Your task to perform on an android device: Go to CNN.com Image 0: 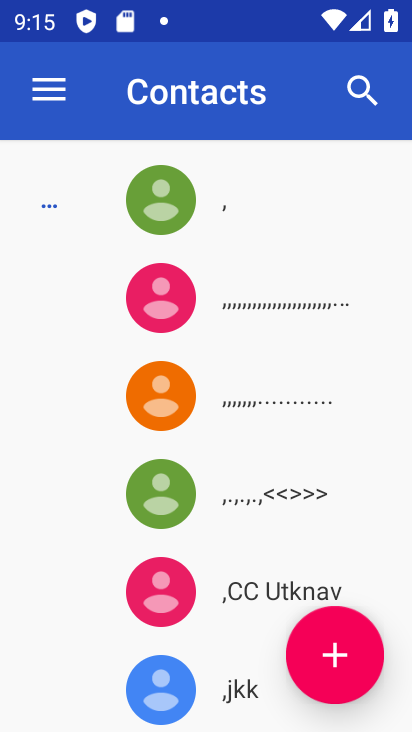
Step 0: press home button
Your task to perform on an android device: Go to CNN.com Image 1: 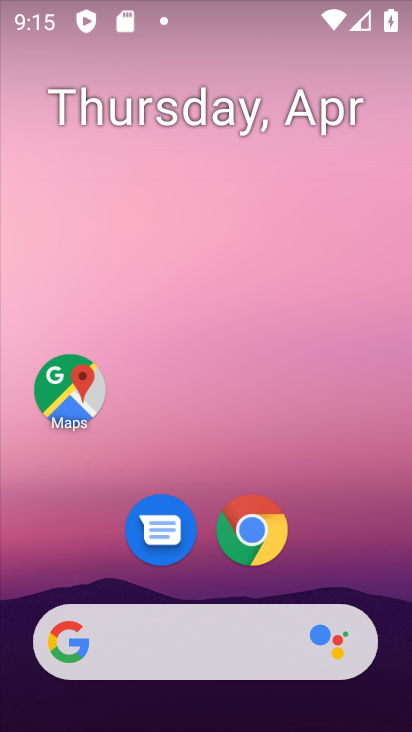
Step 1: drag from (385, 611) to (252, 90)
Your task to perform on an android device: Go to CNN.com Image 2: 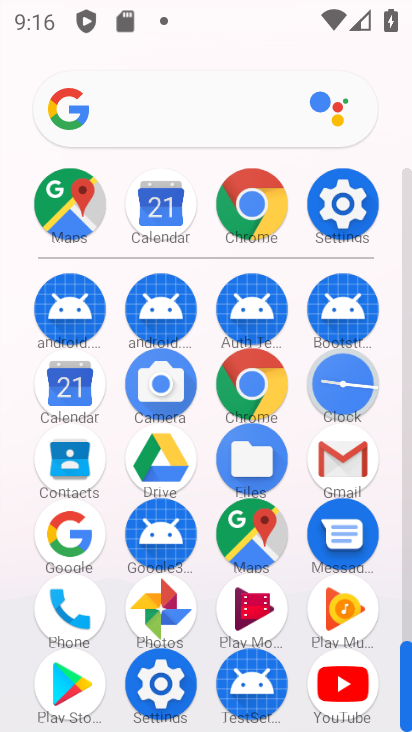
Step 2: click (246, 362)
Your task to perform on an android device: Go to CNN.com Image 3: 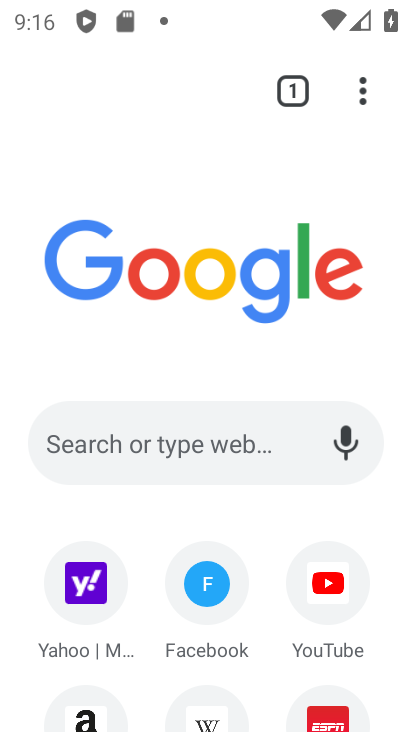
Step 3: click (167, 442)
Your task to perform on an android device: Go to CNN.com Image 4: 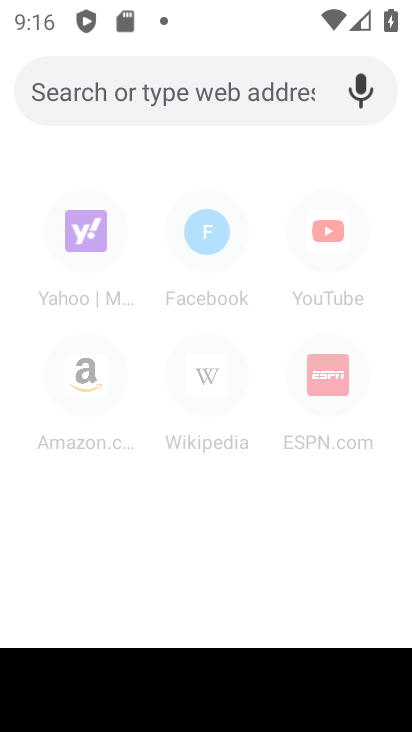
Step 4: type "cnn.com"
Your task to perform on an android device: Go to CNN.com Image 5: 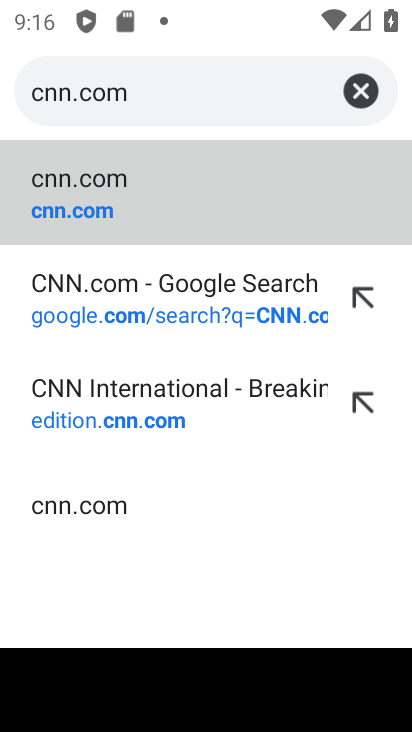
Step 5: click (210, 178)
Your task to perform on an android device: Go to CNN.com Image 6: 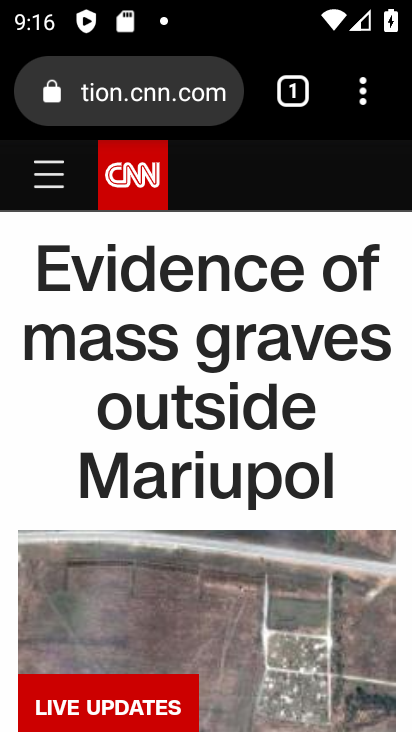
Step 6: task complete